Your task to perform on an android device: check android version Image 0: 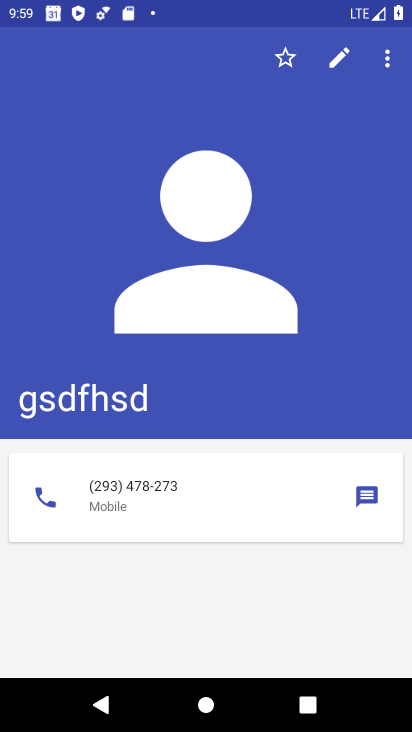
Step 0: press home button
Your task to perform on an android device: check android version Image 1: 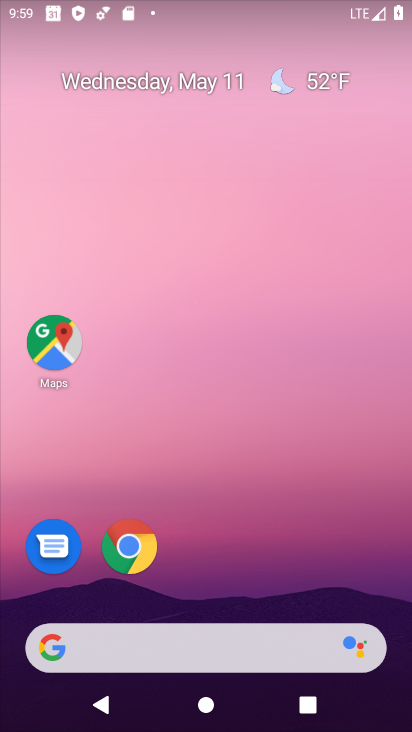
Step 1: drag from (234, 630) to (182, 127)
Your task to perform on an android device: check android version Image 2: 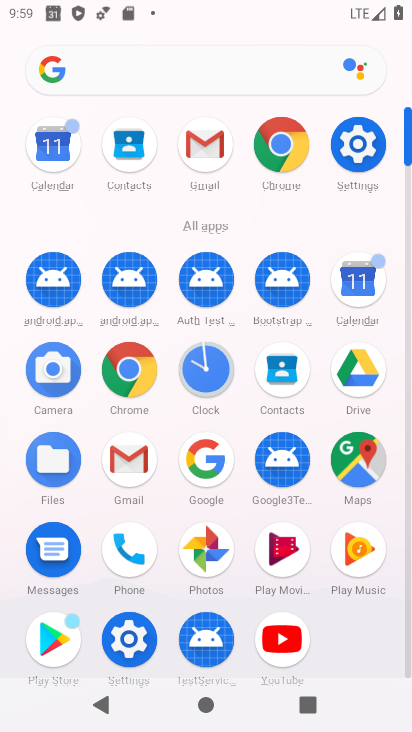
Step 2: click (138, 646)
Your task to perform on an android device: check android version Image 3: 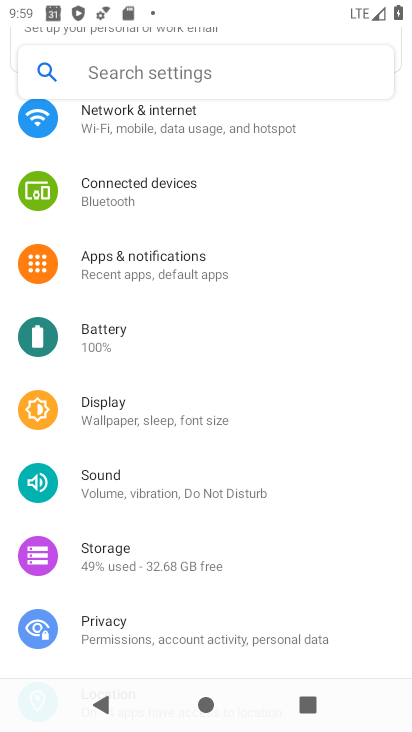
Step 3: drag from (191, 573) to (140, 27)
Your task to perform on an android device: check android version Image 4: 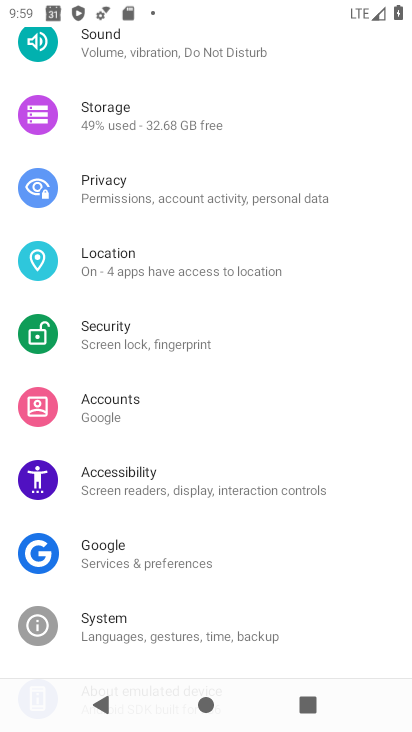
Step 4: drag from (139, 631) to (135, 175)
Your task to perform on an android device: check android version Image 5: 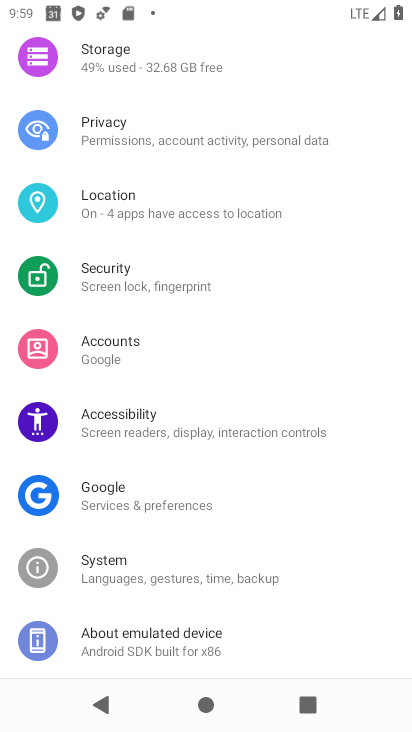
Step 5: click (152, 652)
Your task to perform on an android device: check android version Image 6: 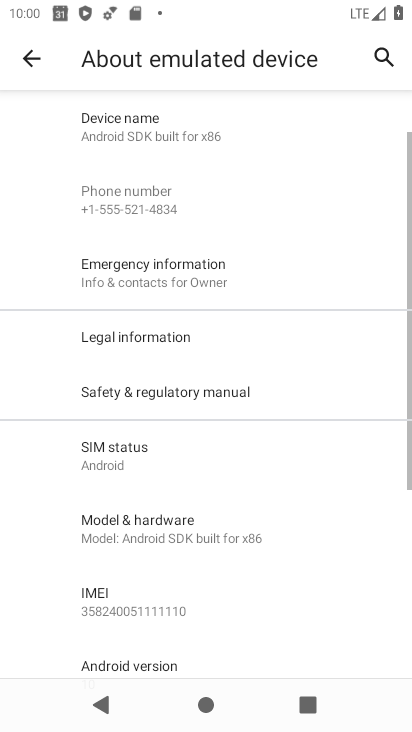
Step 6: drag from (165, 511) to (140, 8)
Your task to perform on an android device: check android version Image 7: 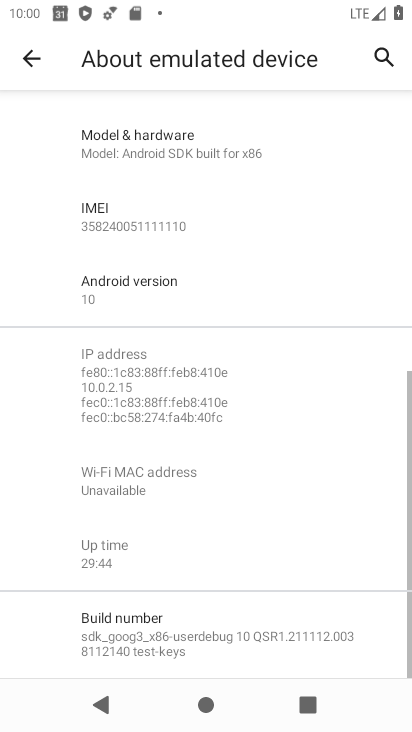
Step 7: click (127, 304)
Your task to perform on an android device: check android version Image 8: 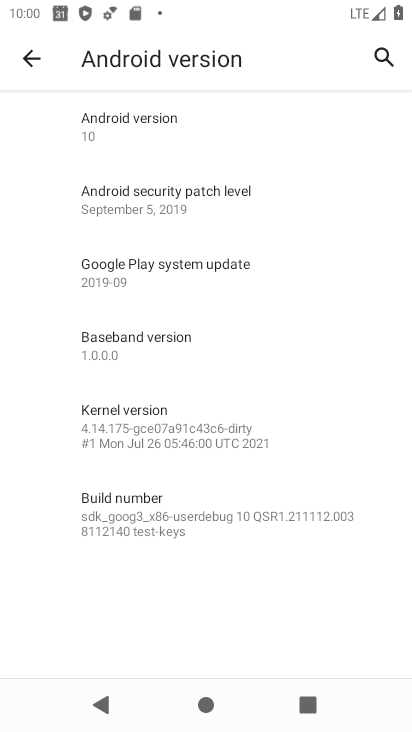
Step 8: task complete